Your task to perform on an android device: Open Amazon Image 0: 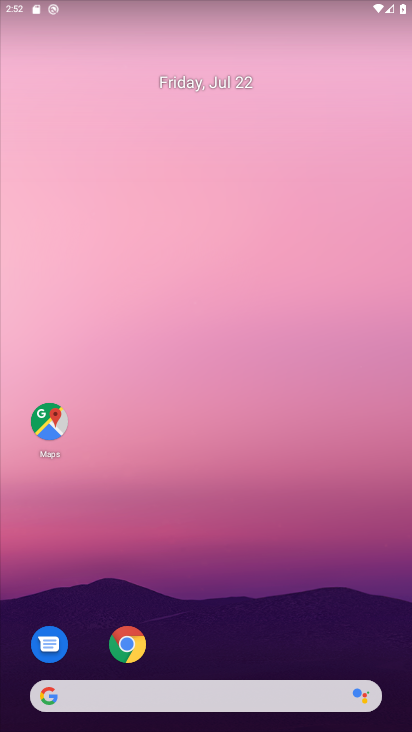
Step 0: drag from (186, 642) to (198, 315)
Your task to perform on an android device: Open Amazon Image 1: 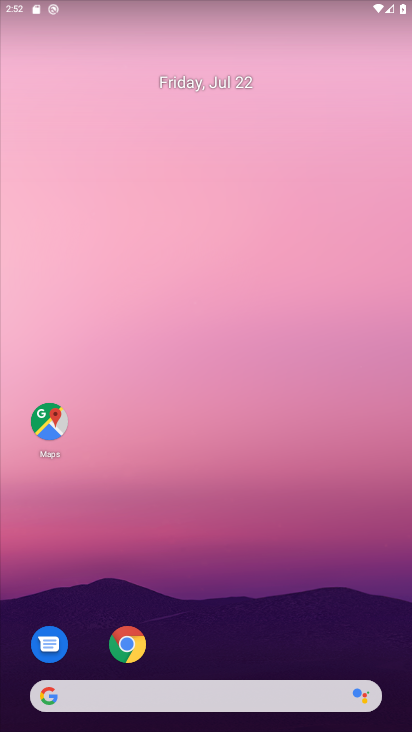
Step 1: click (126, 648)
Your task to perform on an android device: Open Amazon Image 2: 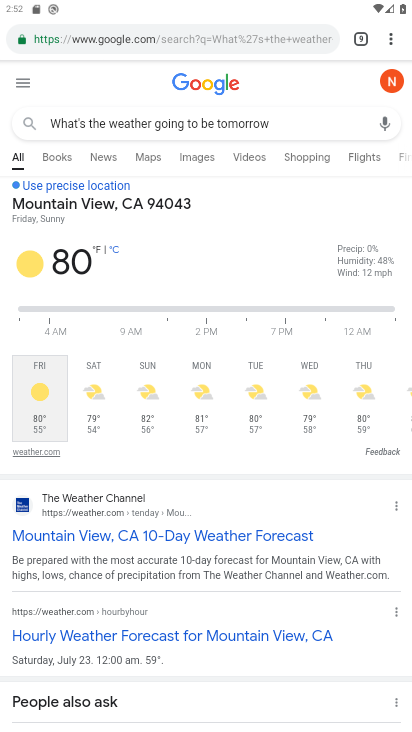
Step 2: click (397, 33)
Your task to perform on an android device: Open Amazon Image 3: 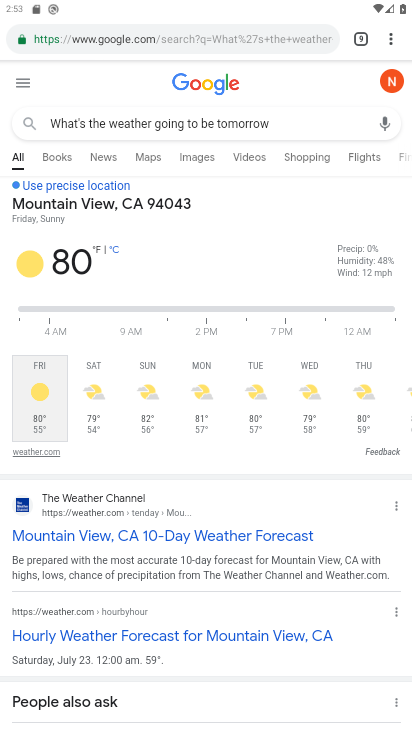
Step 3: click (386, 33)
Your task to perform on an android device: Open Amazon Image 4: 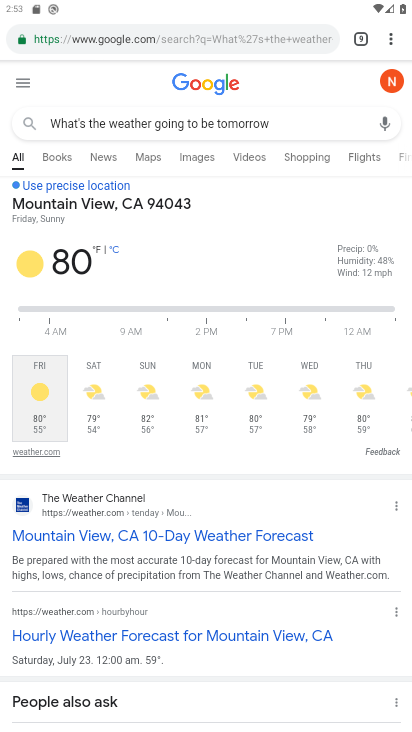
Step 4: click (389, 24)
Your task to perform on an android device: Open Amazon Image 5: 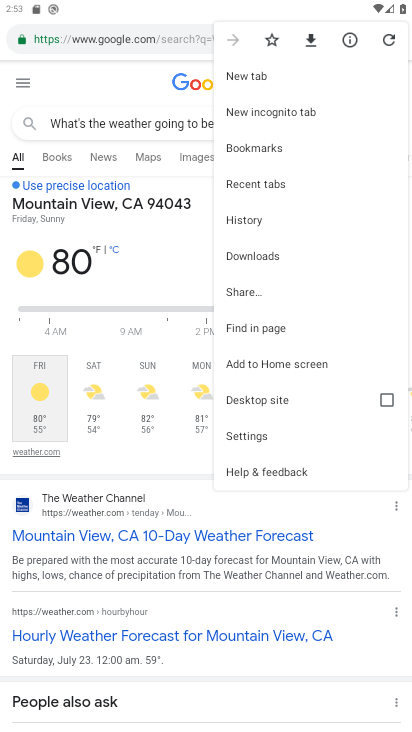
Step 5: click (253, 75)
Your task to perform on an android device: Open Amazon Image 6: 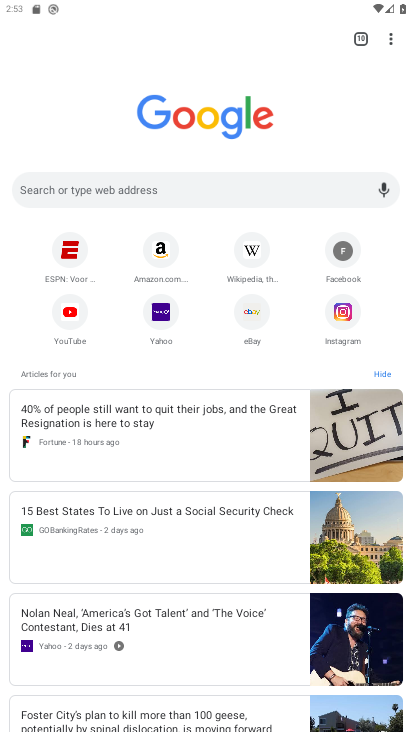
Step 6: click (160, 248)
Your task to perform on an android device: Open Amazon Image 7: 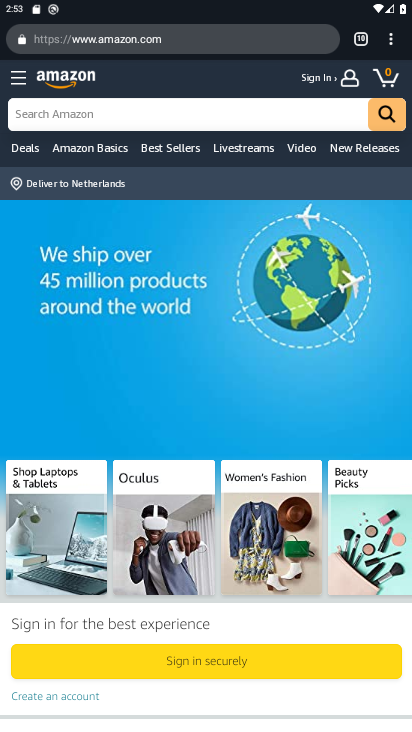
Step 7: task complete